Your task to perform on an android device: Check the weather Image 0: 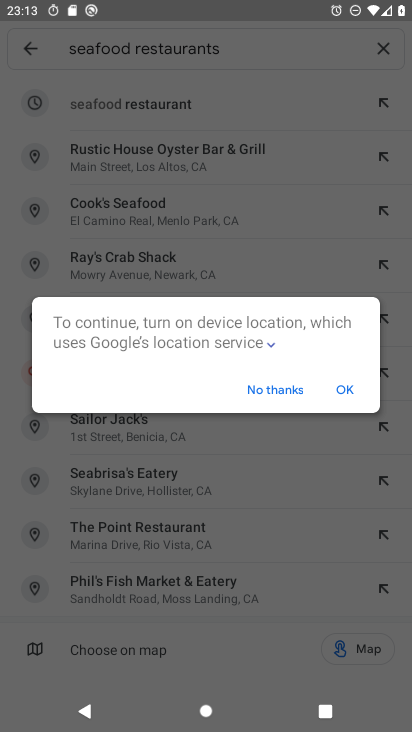
Step 0: press back button
Your task to perform on an android device: Check the weather Image 1: 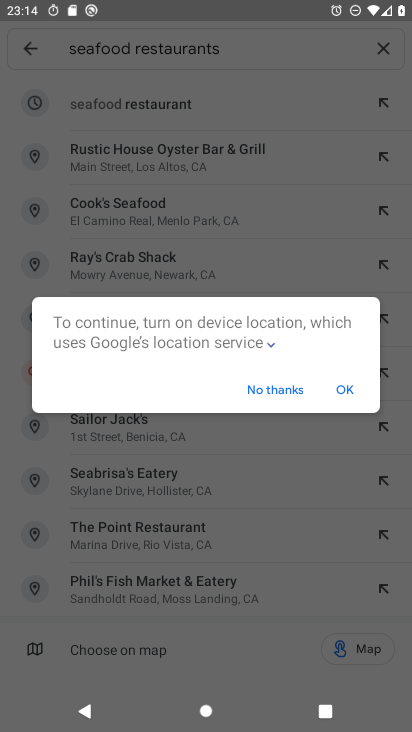
Step 1: press back button
Your task to perform on an android device: Check the weather Image 2: 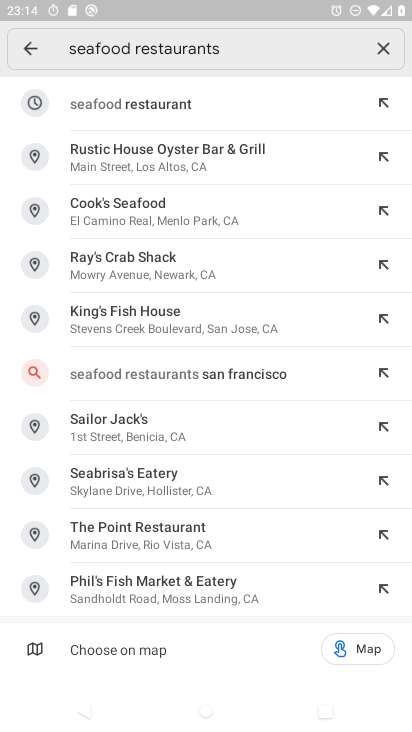
Step 2: press home button
Your task to perform on an android device: Check the weather Image 3: 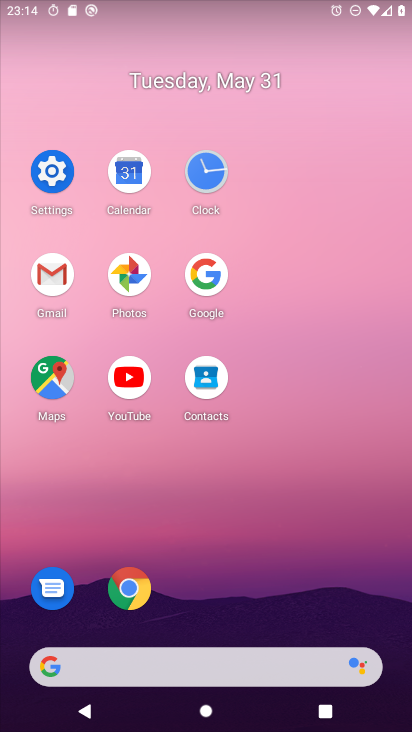
Step 3: click (222, 281)
Your task to perform on an android device: Check the weather Image 4: 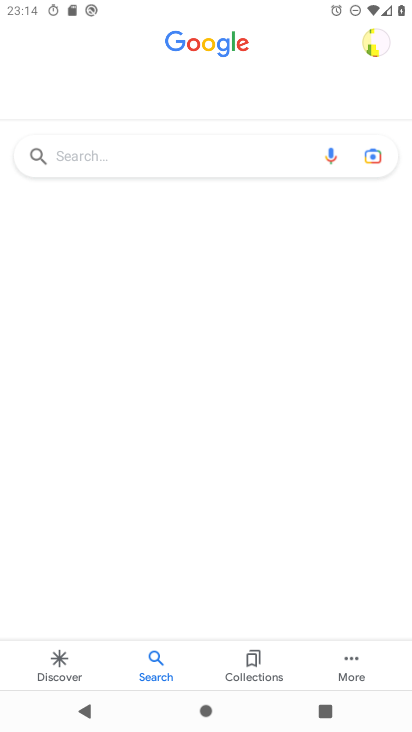
Step 4: click (140, 146)
Your task to perform on an android device: Check the weather Image 5: 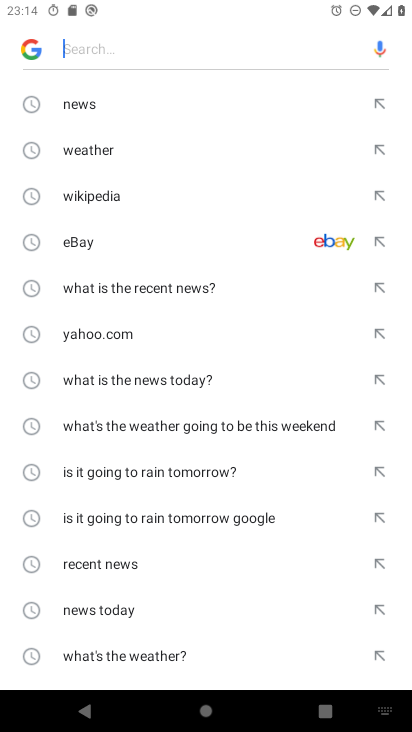
Step 5: click (126, 148)
Your task to perform on an android device: Check the weather Image 6: 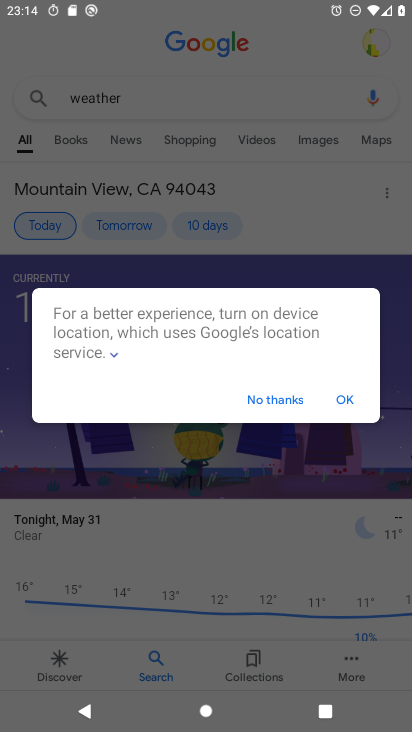
Step 6: click (346, 399)
Your task to perform on an android device: Check the weather Image 7: 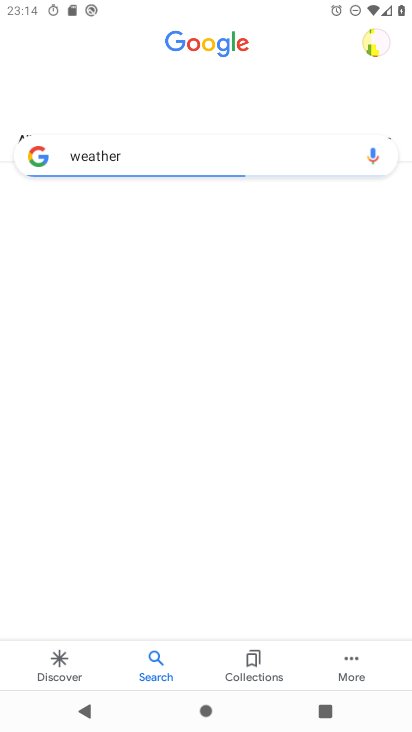
Step 7: task complete